Your task to perform on an android device: Clear all items from cart on bestbuy. Add "razer blade" to the cart on bestbuy, then select checkout. Image 0: 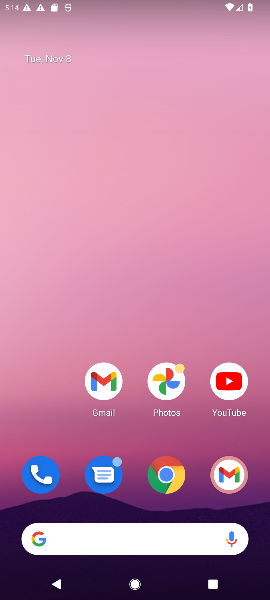
Step 0: drag from (124, 558) to (116, 223)
Your task to perform on an android device: Clear all items from cart on bestbuy. Add "razer blade" to the cart on bestbuy, then select checkout. Image 1: 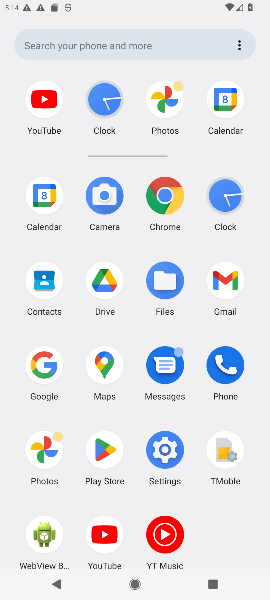
Step 1: click (41, 363)
Your task to perform on an android device: Clear all items from cart on bestbuy. Add "razer blade" to the cart on bestbuy, then select checkout. Image 2: 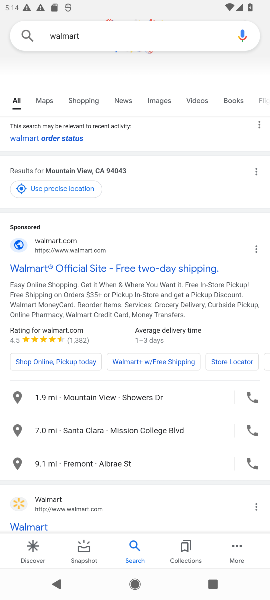
Step 2: click (116, 27)
Your task to perform on an android device: Clear all items from cart on bestbuy. Add "razer blade" to the cart on bestbuy, then select checkout. Image 3: 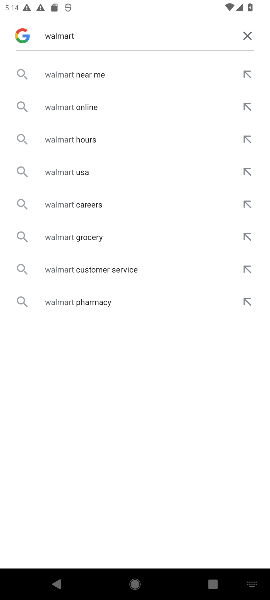
Step 3: click (242, 33)
Your task to perform on an android device: Clear all items from cart on bestbuy. Add "razer blade" to the cart on bestbuy, then select checkout. Image 4: 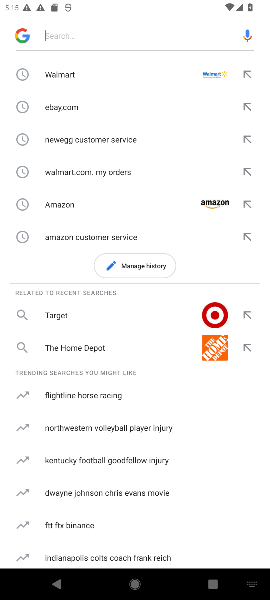
Step 4: click (85, 18)
Your task to perform on an android device: Clear all items from cart on bestbuy. Add "razer blade" to the cart on bestbuy, then select checkout. Image 5: 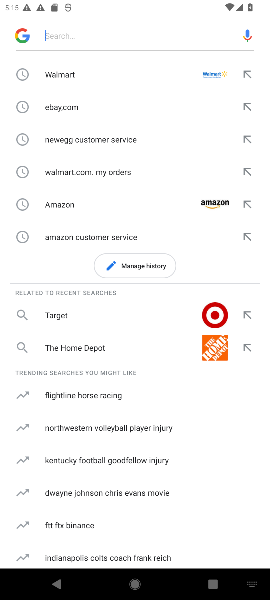
Step 5: click (92, 40)
Your task to perform on an android device: Clear all items from cart on bestbuy. Add "razer blade" to the cart on bestbuy, then select checkout. Image 6: 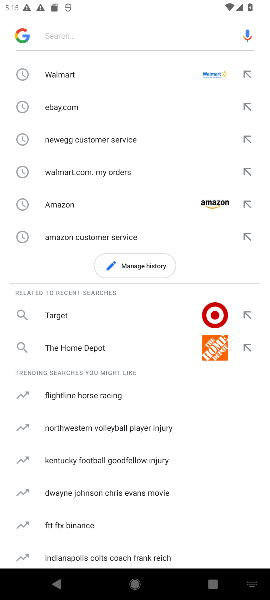
Step 6: click (92, 40)
Your task to perform on an android device: Clear all items from cart on bestbuy. Add "razer blade" to the cart on bestbuy, then select checkout. Image 7: 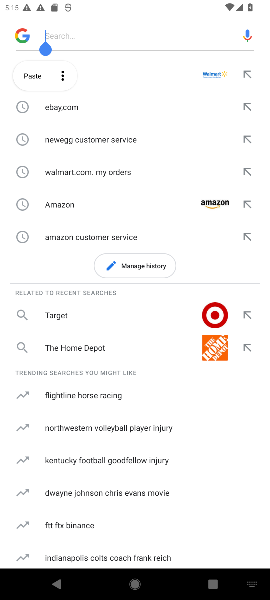
Step 7: type "bestbuy "
Your task to perform on an android device: Clear all items from cart on bestbuy. Add "razer blade" to the cart on bestbuy, then select checkout. Image 8: 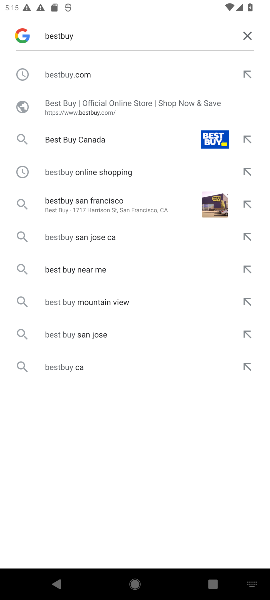
Step 8: click (56, 63)
Your task to perform on an android device: Clear all items from cart on bestbuy. Add "razer blade" to the cart on bestbuy, then select checkout. Image 9: 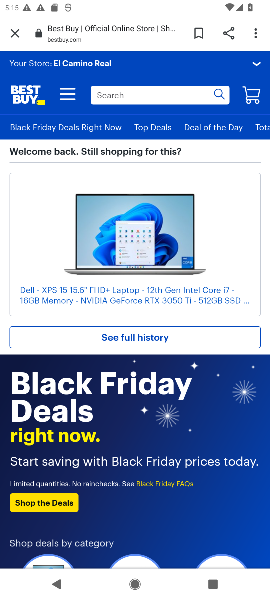
Step 9: click (162, 87)
Your task to perform on an android device: Clear all items from cart on bestbuy. Add "razer blade" to the cart on bestbuy, then select checkout. Image 10: 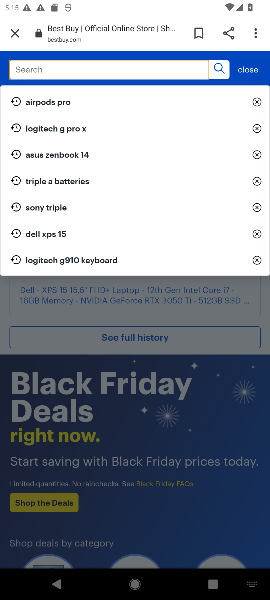
Step 10: click (136, 59)
Your task to perform on an android device: Clear all items from cart on bestbuy. Add "razer blade" to the cart on bestbuy, then select checkout. Image 11: 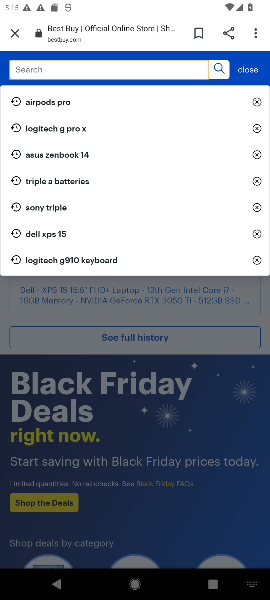
Step 11: click (136, 67)
Your task to perform on an android device: Clear all items from cart on bestbuy. Add "razer blade" to the cart on bestbuy, then select checkout. Image 12: 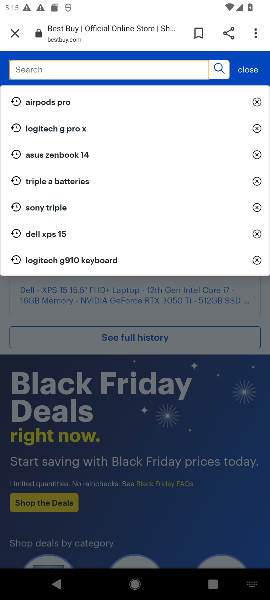
Step 12: click (136, 67)
Your task to perform on an android device: Clear all items from cart on bestbuy. Add "razer blade" to the cart on bestbuy, then select checkout. Image 13: 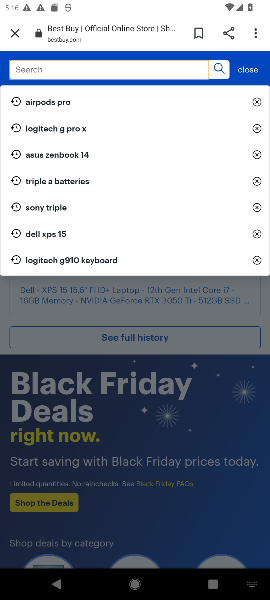
Step 13: type "razer blade "
Your task to perform on an android device: Clear all items from cart on bestbuy. Add "razer blade" to the cart on bestbuy, then select checkout. Image 14: 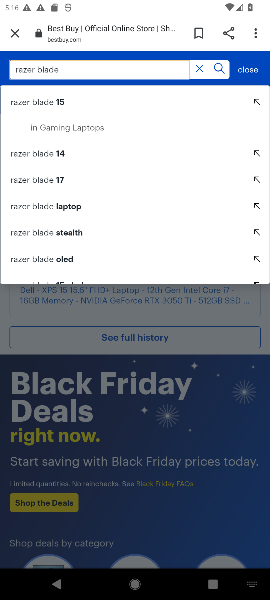
Step 14: click (48, 101)
Your task to perform on an android device: Clear all items from cart on bestbuy. Add "razer blade" to the cart on bestbuy, then select checkout. Image 15: 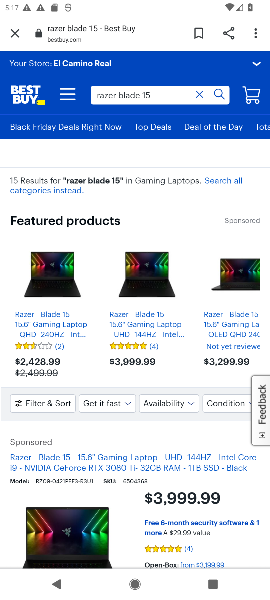
Step 15: click (58, 277)
Your task to perform on an android device: Clear all items from cart on bestbuy. Add "razer blade" to the cart on bestbuy, then select checkout. Image 16: 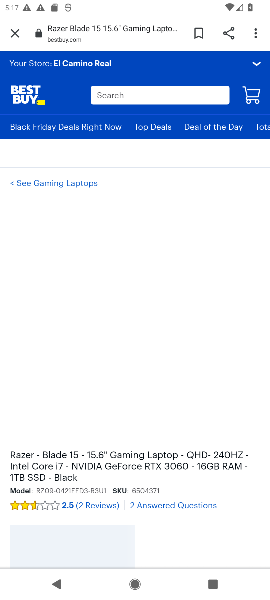
Step 16: drag from (172, 474) to (195, 151)
Your task to perform on an android device: Clear all items from cart on bestbuy. Add "razer blade" to the cart on bestbuy, then select checkout. Image 17: 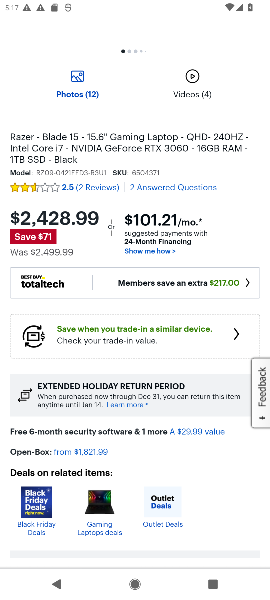
Step 17: drag from (109, 423) to (156, 84)
Your task to perform on an android device: Clear all items from cart on bestbuy. Add "razer blade" to the cart on bestbuy, then select checkout. Image 18: 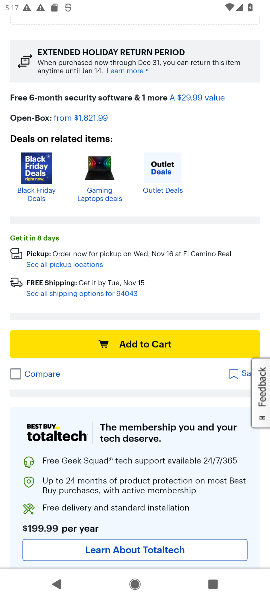
Step 18: click (183, 334)
Your task to perform on an android device: Clear all items from cart on bestbuy. Add "razer blade" to the cart on bestbuy, then select checkout. Image 19: 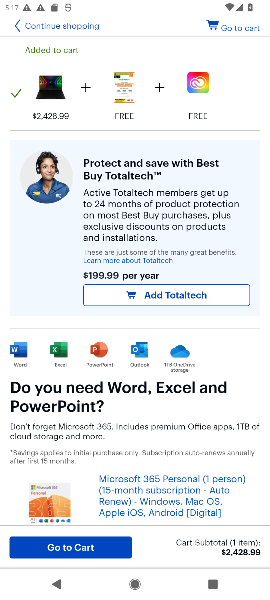
Step 19: drag from (144, 267) to (137, 57)
Your task to perform on an android device: Clear all items from cart on bestbuy. Add "razer blade" to the cart on bestbuy, then select checkout. Image 20: 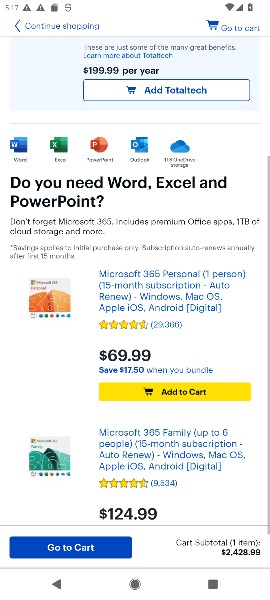
Step 20: drag from (137, 60) to (163, 316)
Your task to perform on an android device: Clear all items from cart on bestbuy. Add "razer blade" to the cart on bestbuy, then select checkout. Image 21: 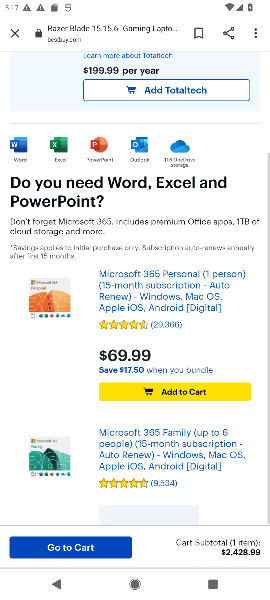
Step 21: drag from (130, 217) to (152, 335)
Your task to perform on an android device: Clear all items from cart on bestbuy. Add "razer blade" to the cart on bestbuy, then select checkout. Image 22: 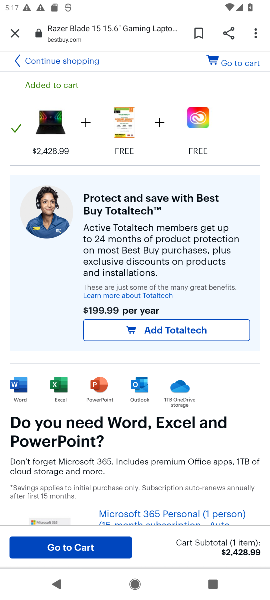
Step 22: drag from (112, 156) to (126, 401)
Your task to perform on an android device: Clear all items from cart on bestbuy. Add "razer blade" to the cart on bestbuy, then select checkout. Image 23: 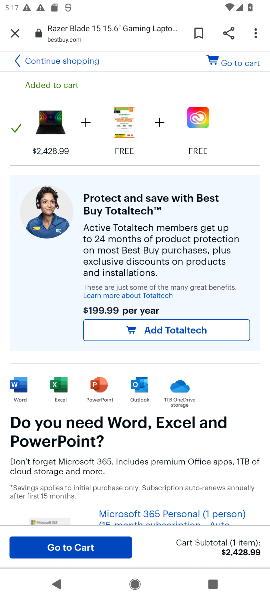
Step 23: drag from (108, 153) to (101, 416)
Your task to perform on an android device: Clear all items from cart on bestbuy. Add "razer blade" to the cart on bestbuy, then select checkout. Image 24: 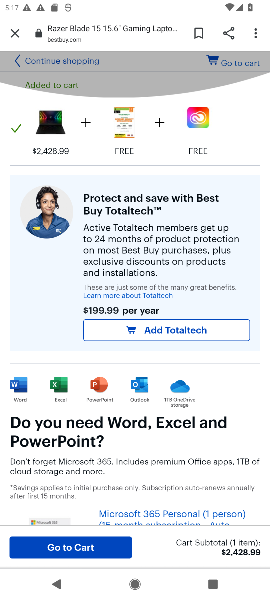
Step 24: drag from (101, 414) to (109, 155)
Your task to perform on an android device: Clear all items from cart on bestbuy. Add "razer blade" to the cart on bestbuy, then select checkout. Image 25: 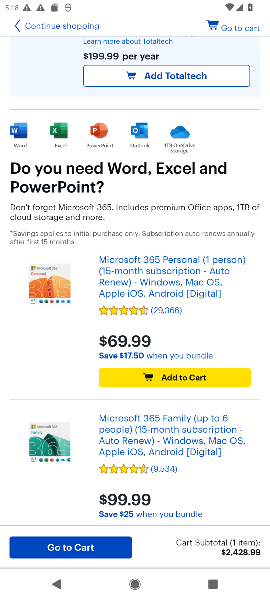
Step 25: press back button
Your task to perform on an android device: Clear all items from cart on bestbuy. Add "razer blade" to the cart on bestbuy, then select checkout. Image 26: 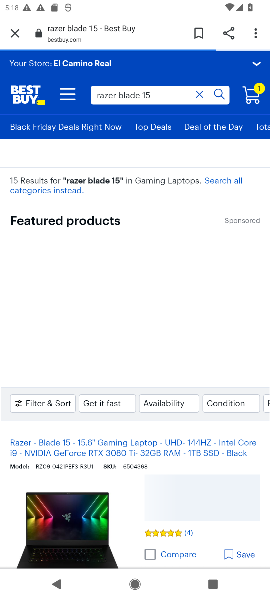
Step 26: drag from (140, 513) to (166, 196)
Your task to perform on an android device: Clear all items from cart on bestbuy. Add "razer blade" to the cart on bestbuy, then select checkout. Image 27: 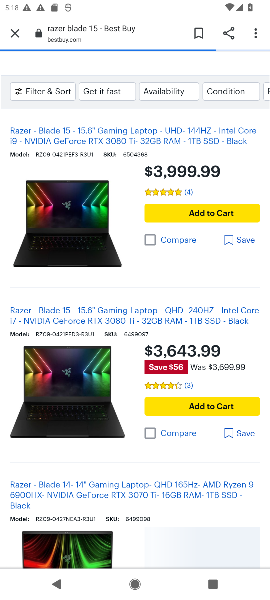
Step 27: click (185, 258)
Your task to perform on an android device: Clear all items from cart on bestbuy. Add "razer blade" to the cart on bestbuy, then select checkout. Image 28: 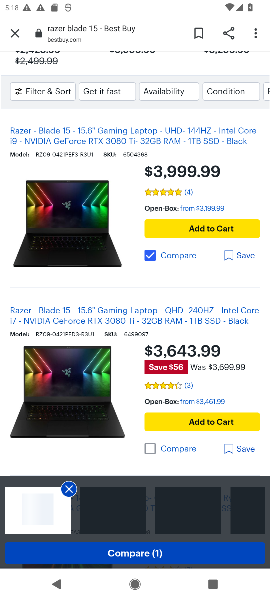
Step 28: click (173, 250)
Your task to perform on an android device: Clear all items from cart on bestbuy. Add "razer blade" to the cart on bestbuy, then select checkout. Image 29: 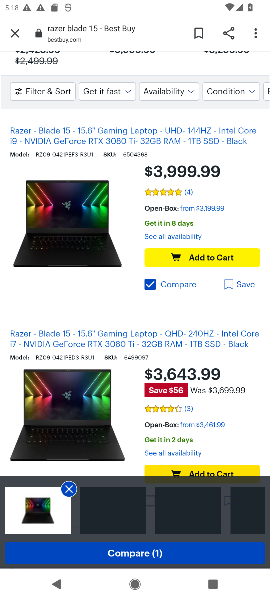
Step 29: task complete